Your task to perform on an android device: Open calendar and show me the fourth week of next month Image 0: 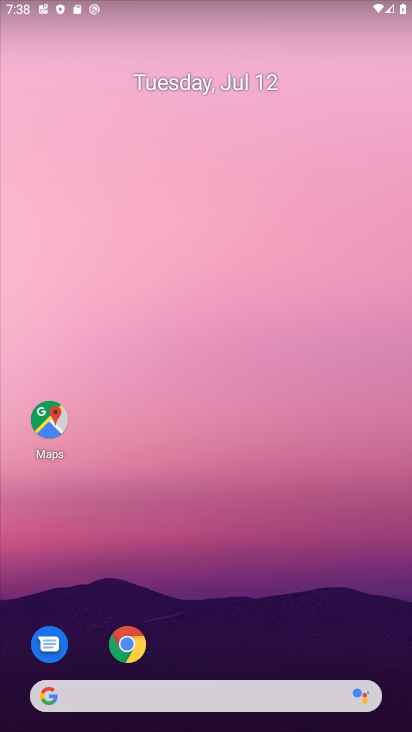
Step 0: drag from (177, 686) to (233, 121)
Your task to perform on an android device: Open calendar and show me the fourth week of next month Image 1: 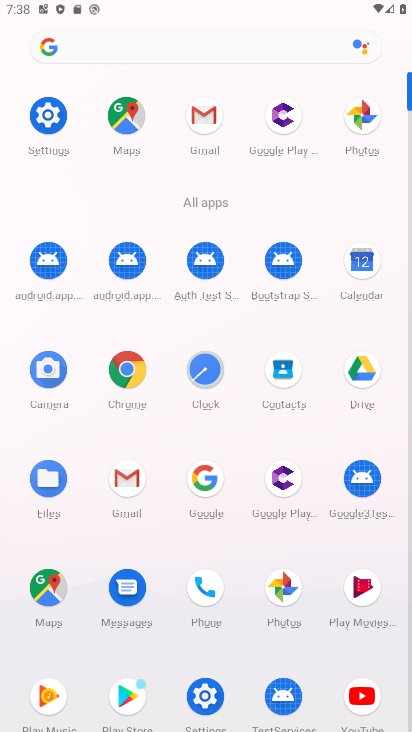
Step 1: click (360, 263)
Your task to perform on an android device: Open calendar and show me the fourth week of next month Image 2: 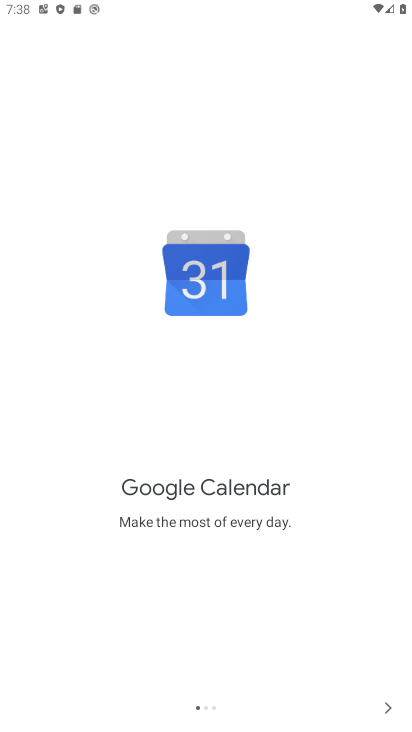
Step 2: click (386, 706)
Your task to perform on an android device: Open calendar and show me the fourth week of next month Image 3: 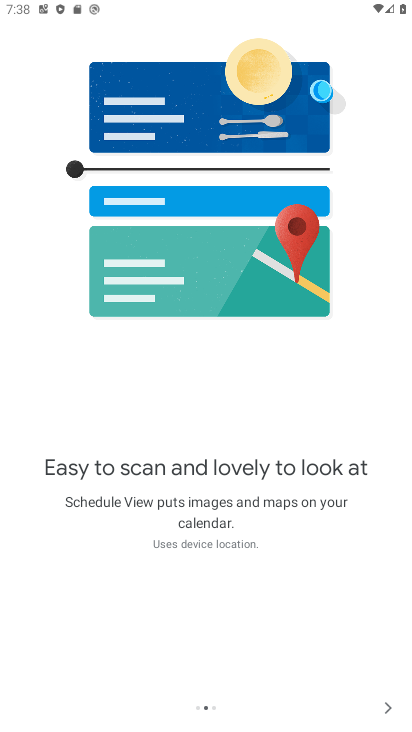
Step 3: click (386, 706)
Your task to perform on an android device: Open calendar and show me the fourth week of next month Image 4: 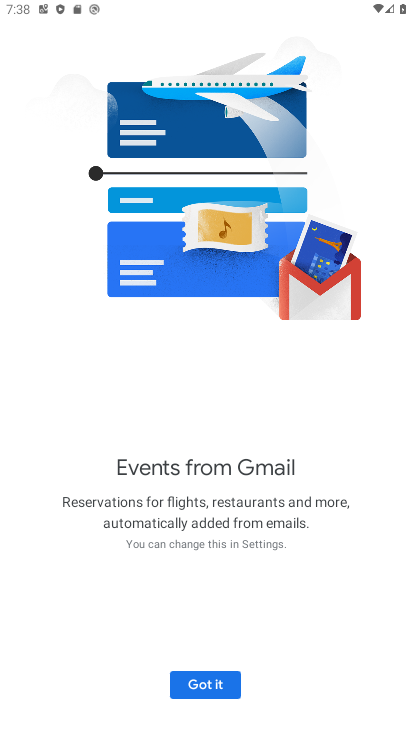
Step 4: click (178, 686)
Your task to perform on an android device: Open calendar and show me the fourth week of next month Image 5: 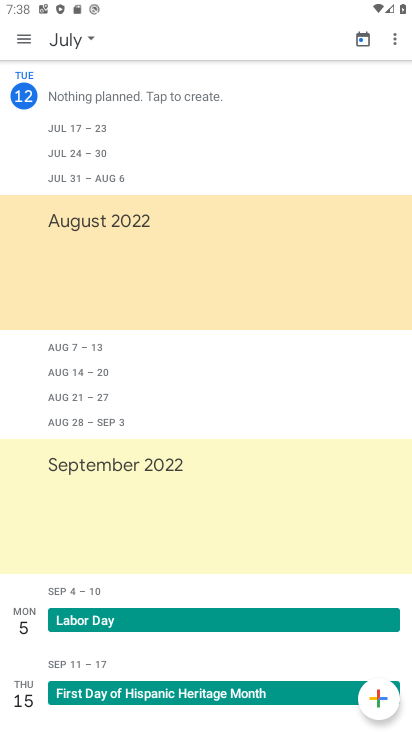
Step 5: click (62, 43)
Your task to perform on an android device: Open calendar and show me the fourth week of next month Image 6: 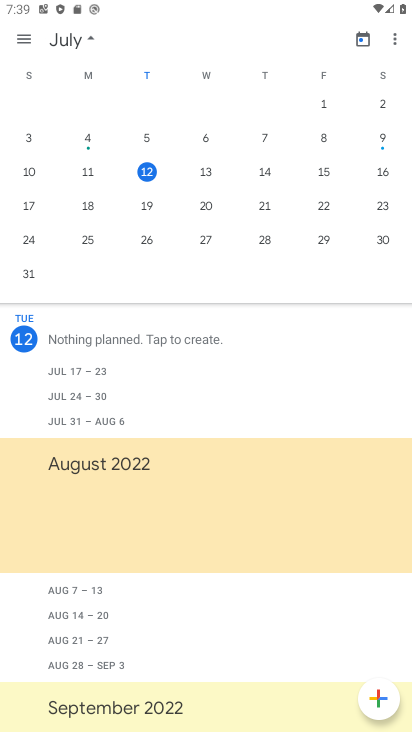
Step 6: drag from (373, 211) to (7, 176)
Your task to perform on an android device: Open calendar and show me the fourth week of next month Image 7: 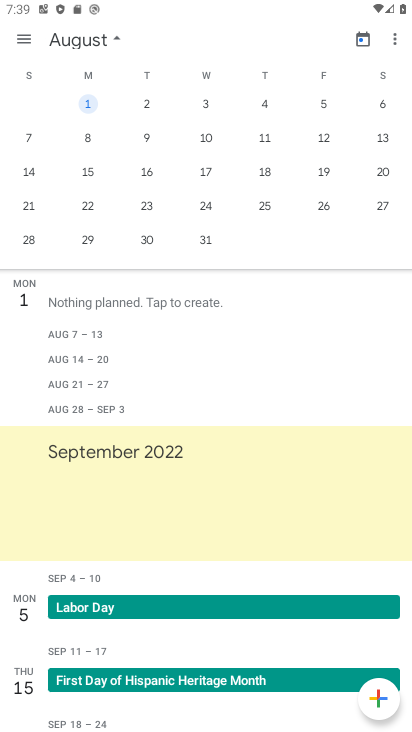
Step 7: click (31, 204)
Your task to perform on an android device: Open calendar and show me the fourth week of next month Image 8: 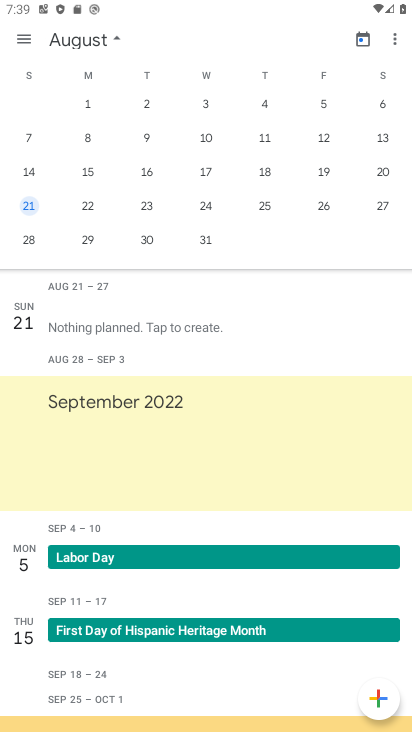
Step 8: task complete